Your task to perform on an android device: Go to ESPN.com Image 0: 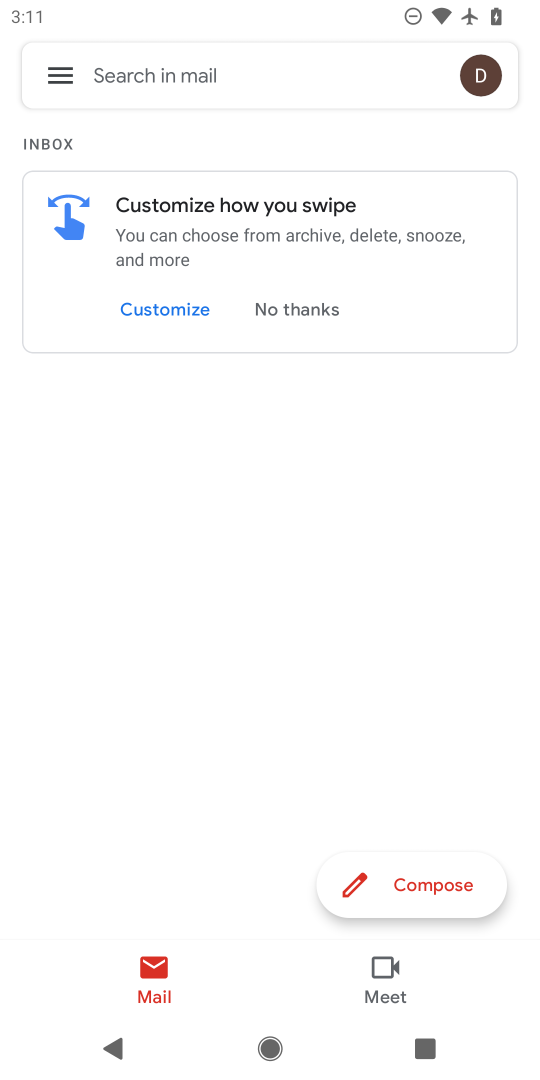
Step 0: press home button
Your task to perform on an android device: Go to ESPN.com Image 1: 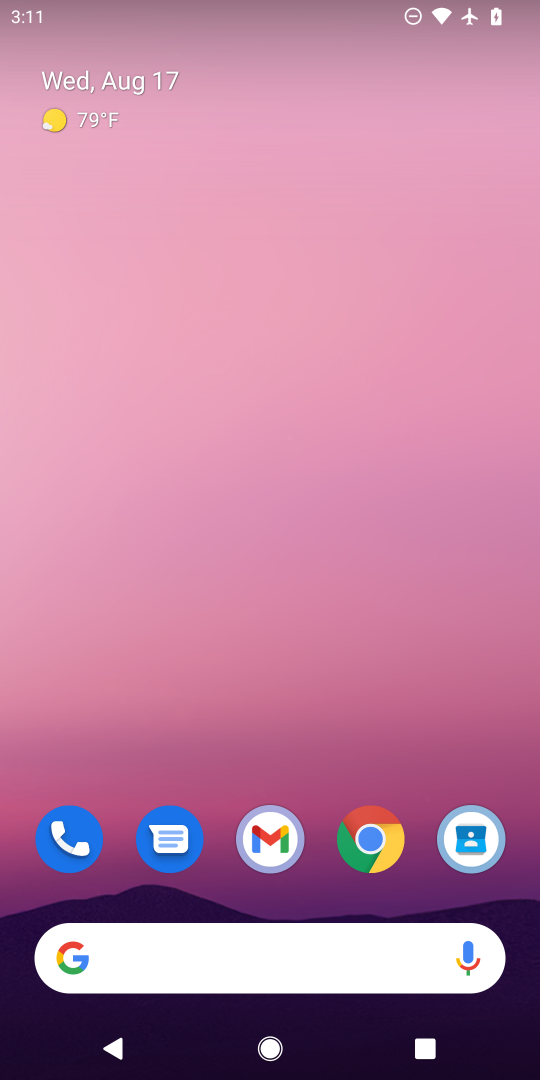
Step 1: click (378, 837)
Your task to perform on an android device: Go to ESPN.com Image 2: 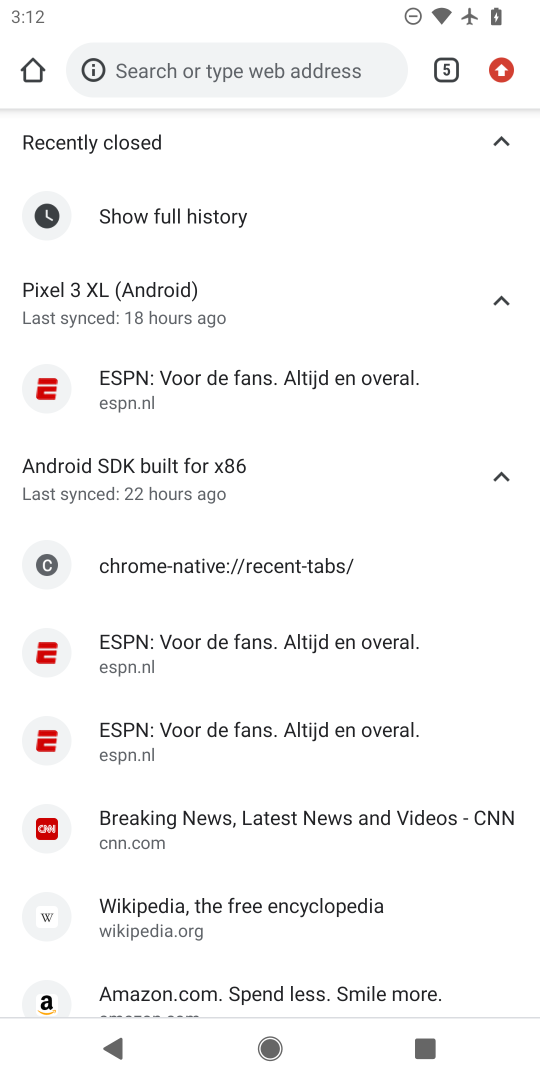
Step 2: click (137, 379)
Your task to perform on an android device: Go to ESPN.com Image 3: 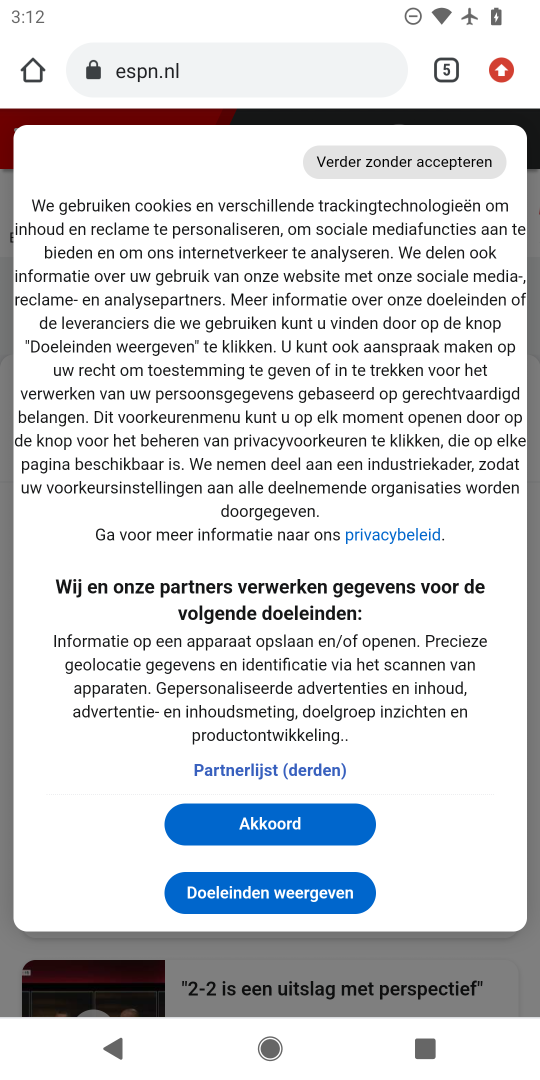
Step 3: click (309, 821)
Your task to perform on an android device: Go to ESPN.com Image 4: 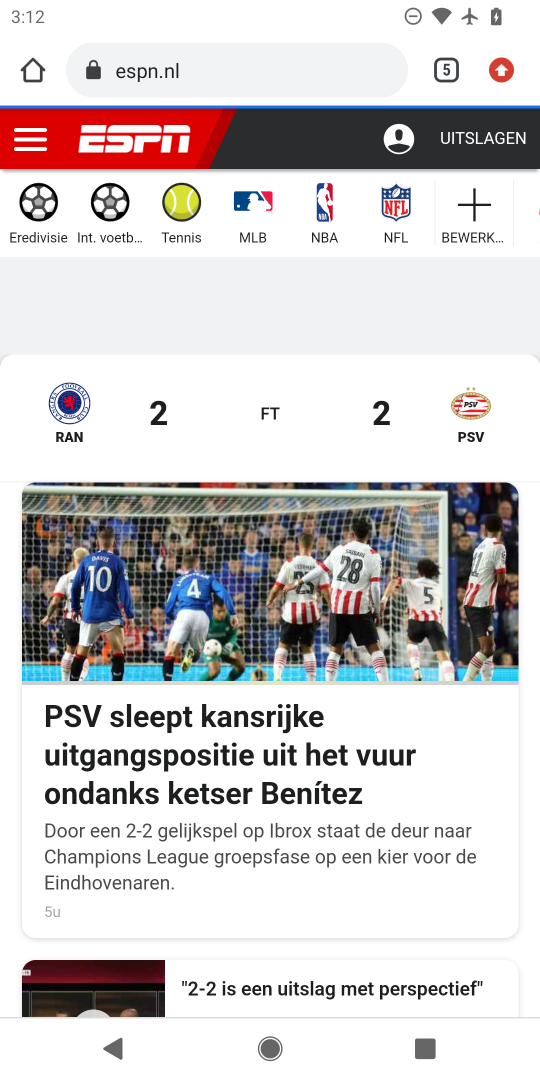
Step 4: task complete